Your task to perform on an android device: Empty the shopping cart on walmart. Search for "lenovo thinkpad" on walmart, select the first entry, add it to the cart, then select checkout. Image 0: 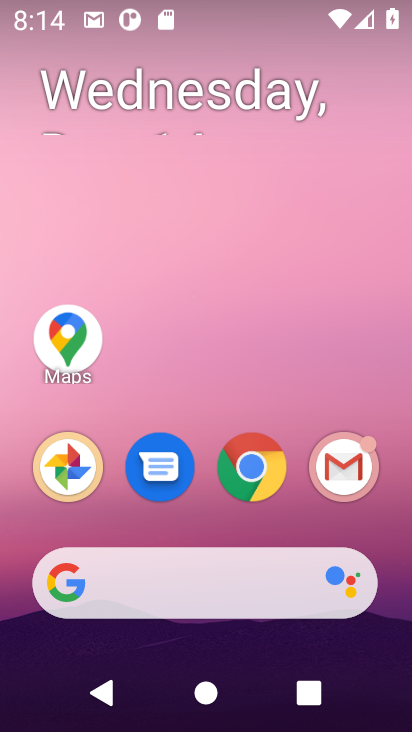
Step 0: click (250, 465)
Your task to perform on an android device: Empty the shopping cart on walmart. Search for "lenovo thinkpad" on walmart, select the first entry, add it to the cart, then select checkout. Image 1: 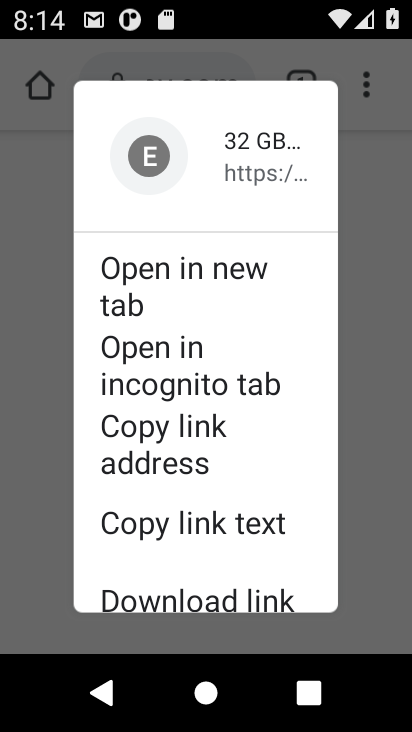
Step 1: press home button
Your task to perform on an android device: Empty the shopping cart on walmart. Search for "lenovo thinkpad" on walmart, select the first entry, add it to the cart, then select checkout. Image 2: 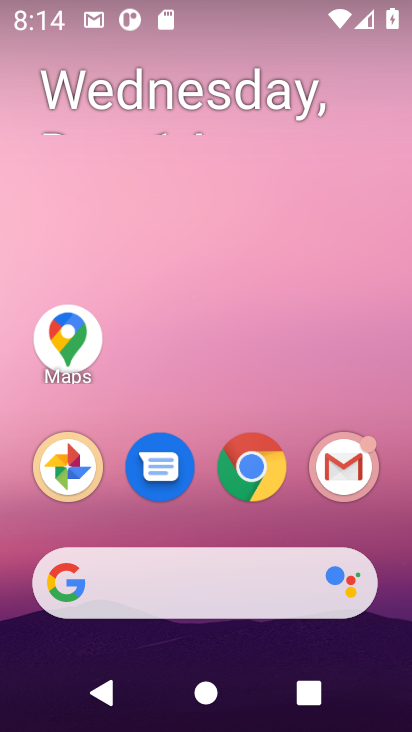
Step 2: click (264, 460)
Your task to perform on an android device: Empty the shopping cart on walmart. Search for "lenovo thinkpad" on walmart, select the first entry, add it to the cart, then select checkout. Image 3: 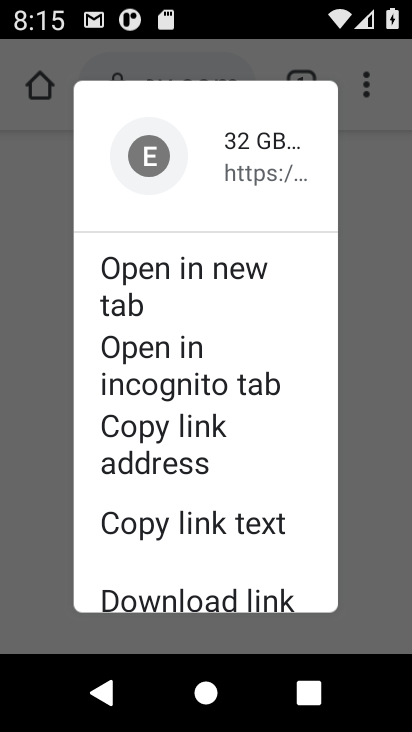
Step 3: press home button
Your task to perform on an android device: Empty the shopping cart on walmart. Search for "lenovo thinkpad" on walmart, select the first entry, add it to the cart, then select checkout. Image 4: 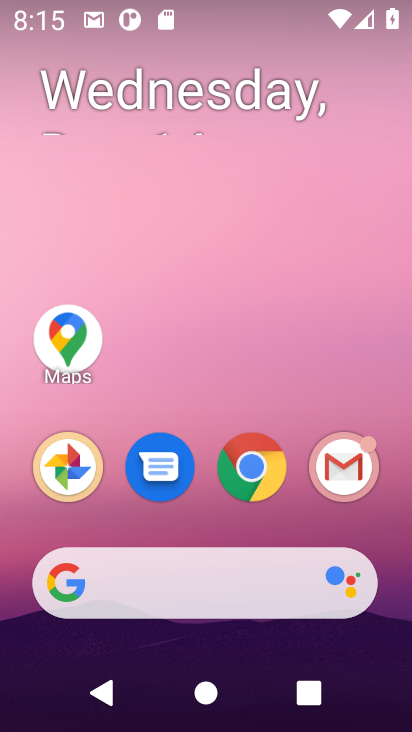
Step 4: click (209, 600)
Your task to perform on an android device: Empty the shopping cart on walmart. Search for "lenovo thinkpad" on walmart, select the first entry, add it to the cart, then select checkout. Image 5: 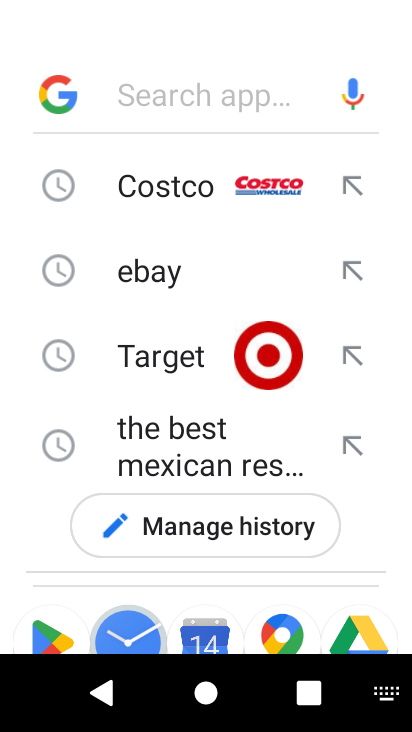
Step 5: type "walmart"
Your task to perform on an android device: Empty the shopping cart on walmart. Search for "lenovo thinkpad" on walmart, select the first entry, add it to the cart, then select checkout. Image 6: 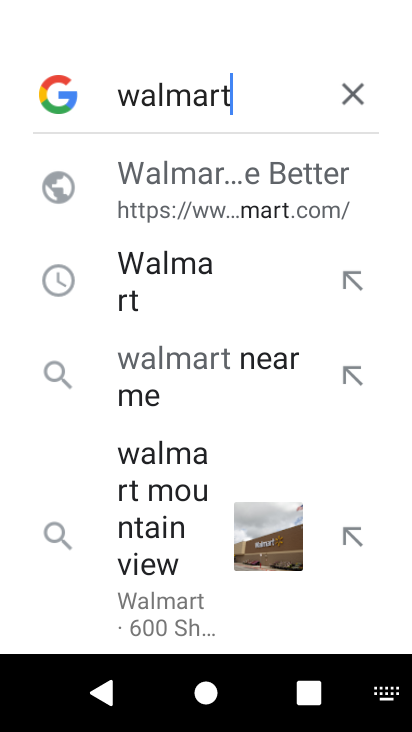
Step 6: click (175, 173)
Your task to perform on an android device: Empty the shopping cart on walmart. Search for "lenovo thinkpad" on walmart, select the first entry, add it to the cart, then select checkout. Image 7: 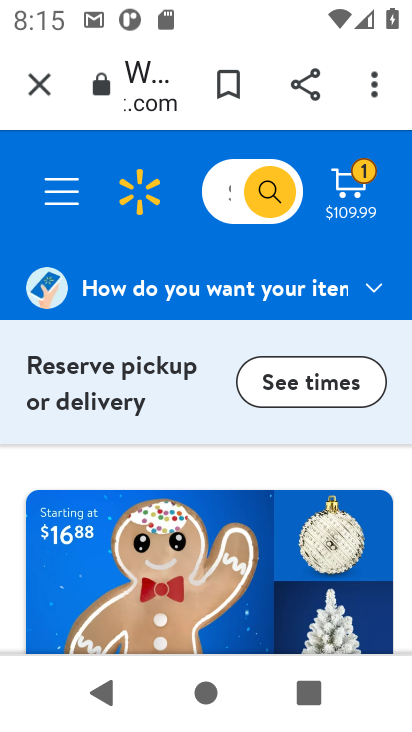
Step 7: click (250, 196)
Your task to perform on an android device: Empty the shopping cart on walmart. Search for "lenovo thinkpad" on walmart, select the first entry, add it to the cart, then select checkout. Image 8: 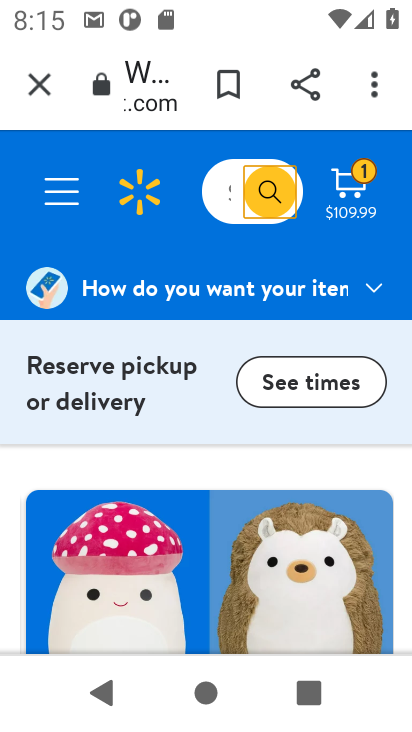
Step 8: type "lenovo thinkpad"
Your task to perform on an android device: Empty the shopping cart on walmart. Search for "lenovo thinkpad" on walmart, select the first entry, add it to the cart, then select checkout. Image 9: 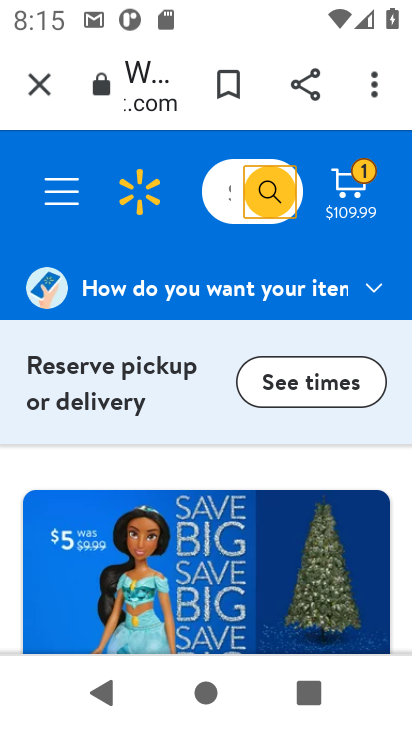
Step 9: click (229, 197)
Your task to perform on an android device: Empty the shopping cart on walmart. Search for "lenovo thinkpad" on walmart, select the first entry, add it to the cart, then select checkout. Image 10: 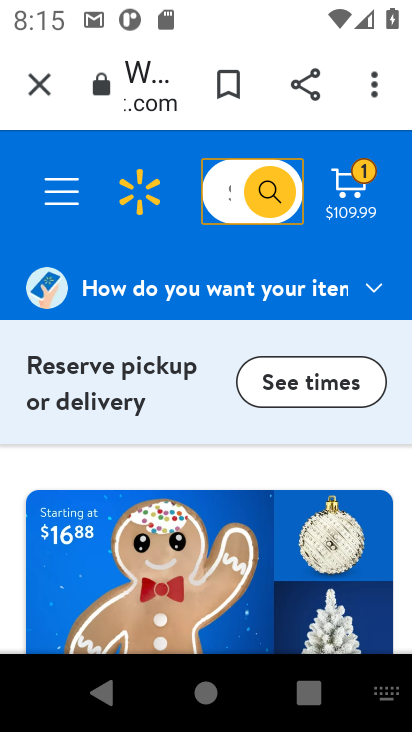
Step 10: task complete